Your task to perform on an android device: turn on bluetooth scan Image 0: 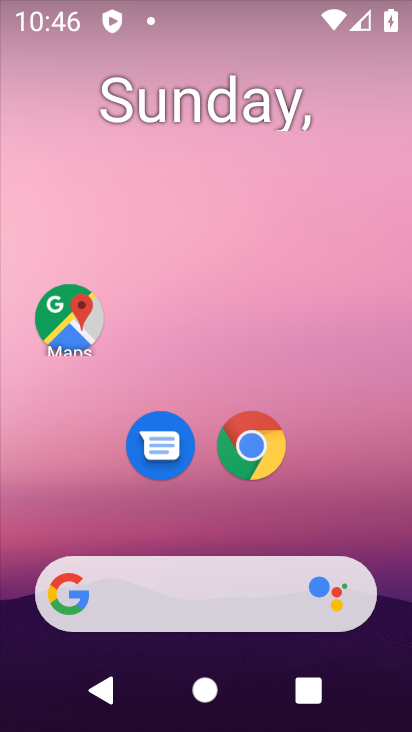
Step 0: drag from (76, 548) to (193, 46)
Your task to perform on an android device: turn on bluetooth scan Image 1: 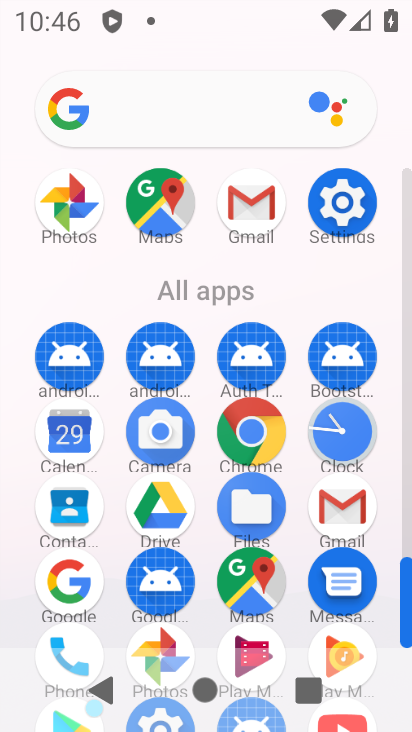
Step 1: drag from (186, 542) to (259, 296)
Your task to perform on an android device: turn on bluetooth scan Image 2: 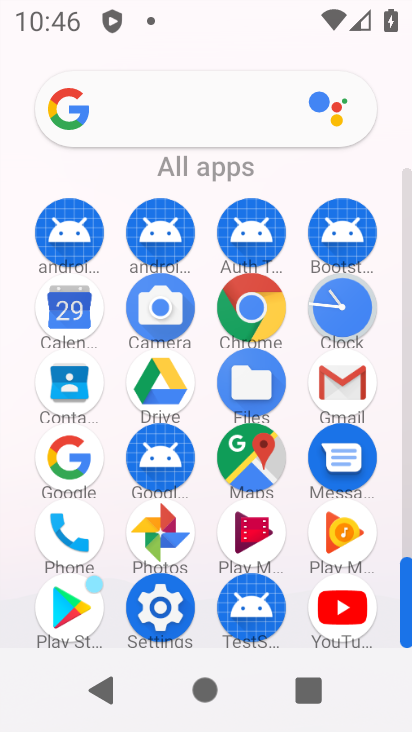
Step 2: click (142, 618)
Your task to perform on an android device: turn on bluetooth scan Image 3: 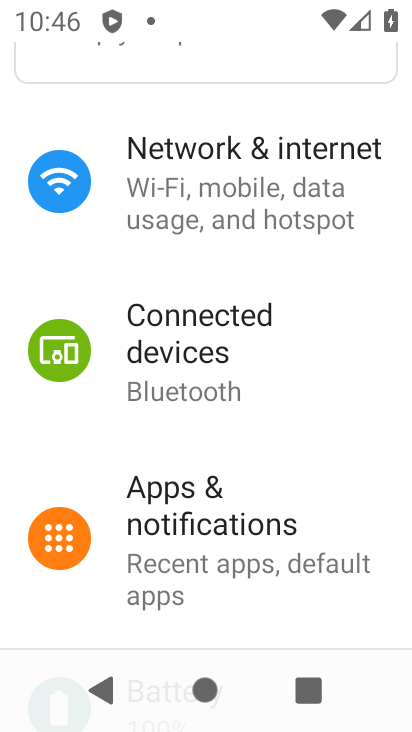
Step 3: click (230, 359)
Your task to perform on an android device: turn on bluetooth scan Image 4: 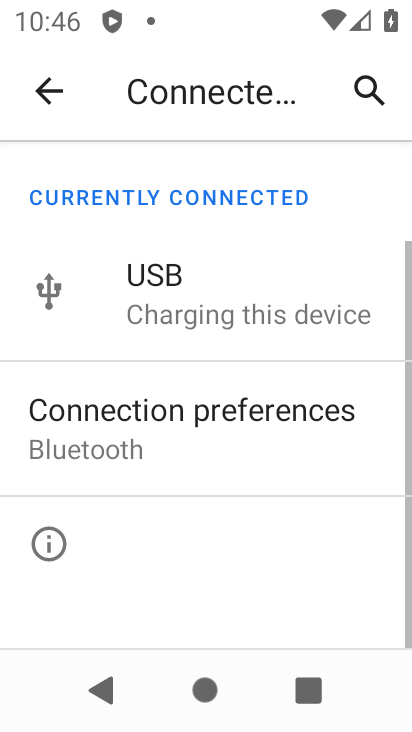
Step 4: click (241, 406)
Your task to perform on an android device: turn on bluetooth scan Image 5: 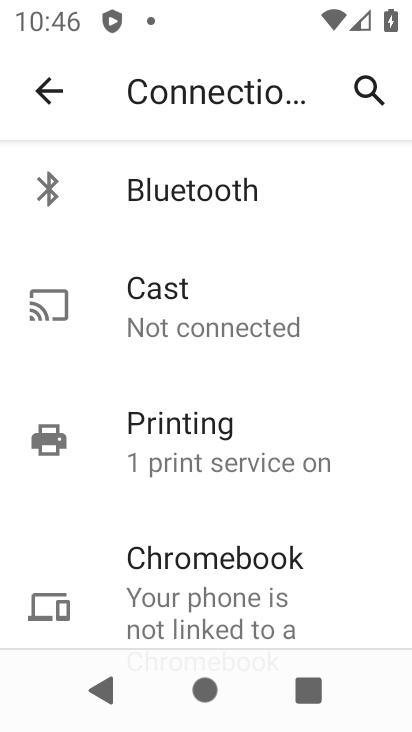
Step 5: click (315, 224)
Your task to perform on an android device: turn on bluetooth scan Image 6: 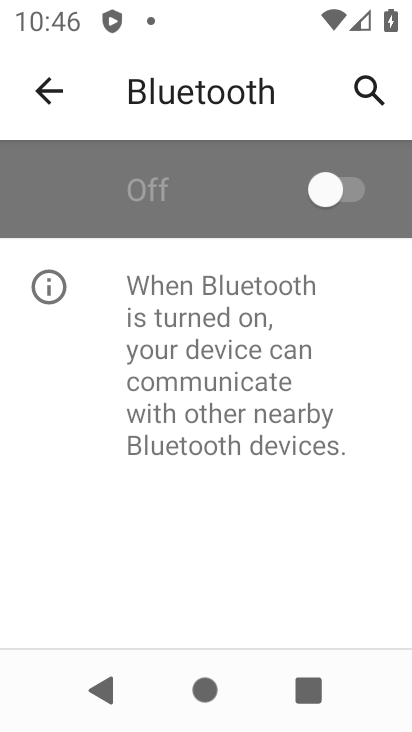
Step 6: click (388, 177)
Your task to perform on an android device: turn on bluetooth scan Image 7: 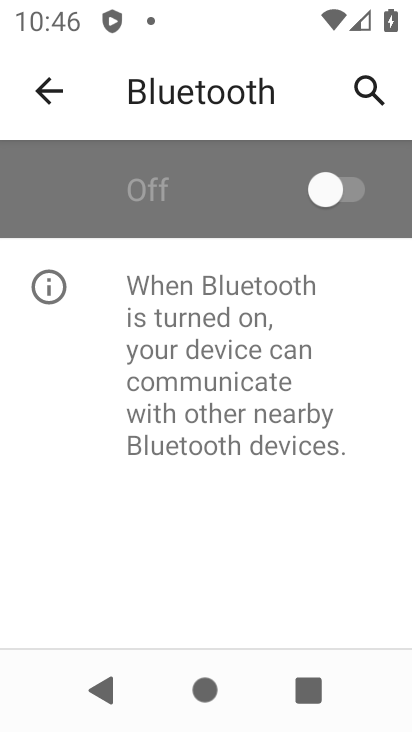
Step 7: click (387, 177)
Your task to perform on an android device: turn on bluetooth scan Image 8: 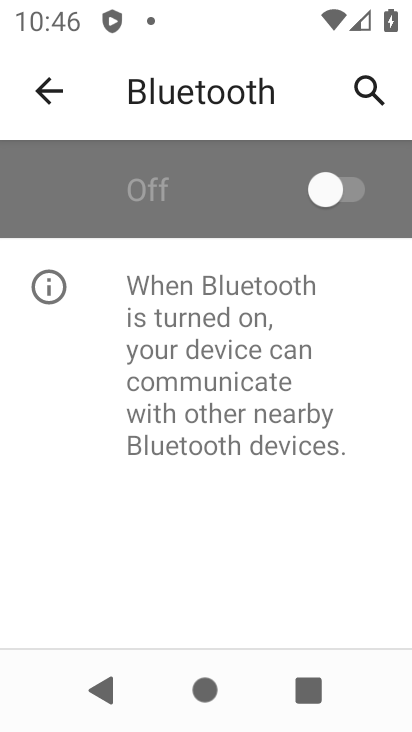
Step 8: click (386, 178)
Your task to perform on an android device: turn on bluetooth scan Image 9: 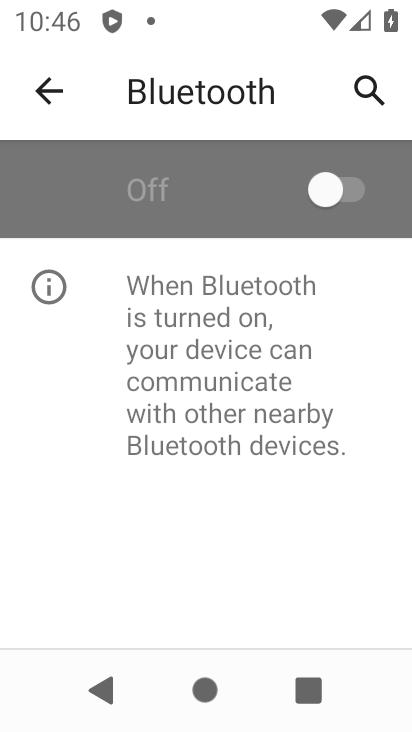
Step 9: click (385, 179)
Your task to perform on an android device: turn on bluetooth scan Image 10: 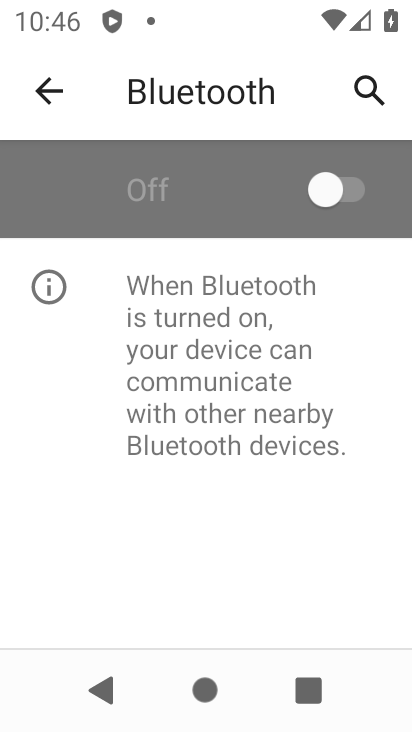
Step 10: task complete